Your task to perform on an android device: Open the map Image 0: 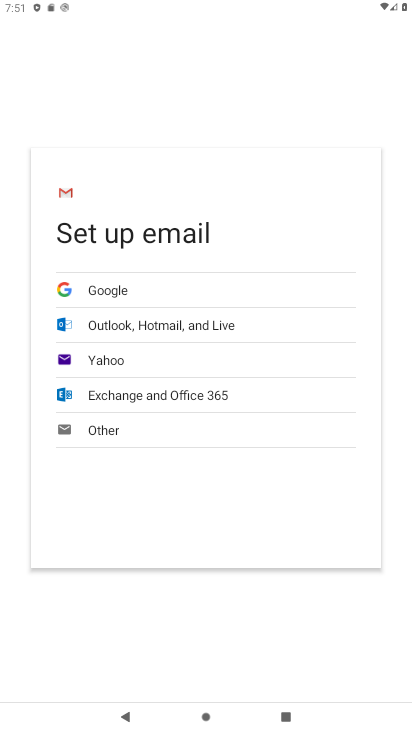
Step 0: press back button
Your task to perform on an android device: Open the map Image 1: 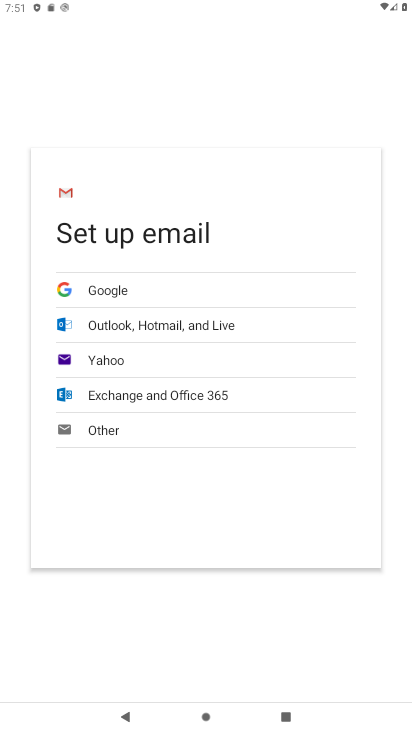
Step 1: press back button
Your task to perform on an android device: Open the map Image 2: 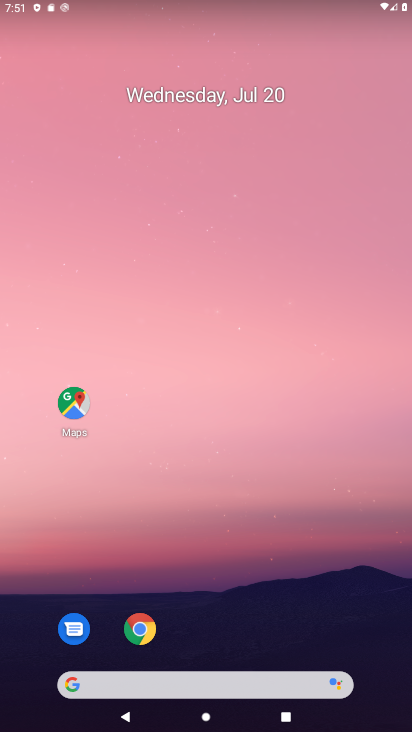
Step 2: drag from (215, 669) to (223, 413)
Your task to perform on an android device: Open the map Image 3: 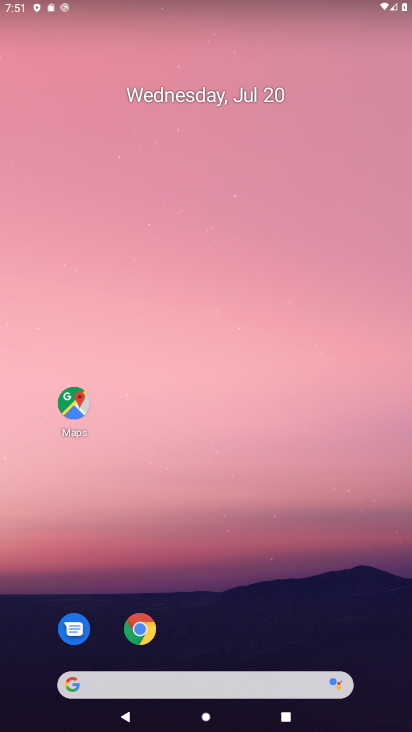
Step 3: drag from (242, 460) to (232, 137)
Your task to perform on an android device: Open the map Image 4: 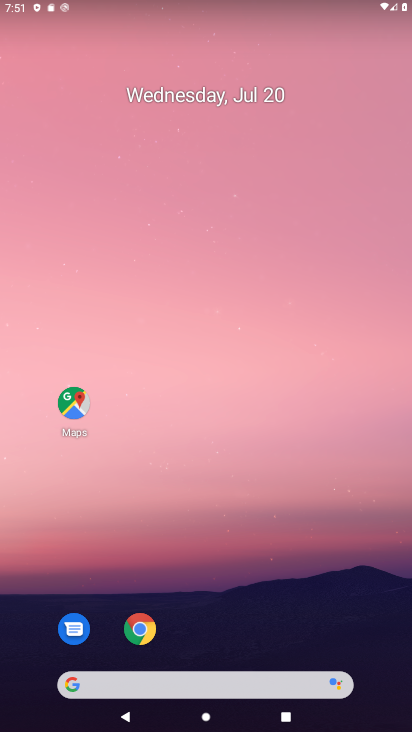
Step 4: click (177, 172)
Your task to perform on an android device: Open the map Image 5: 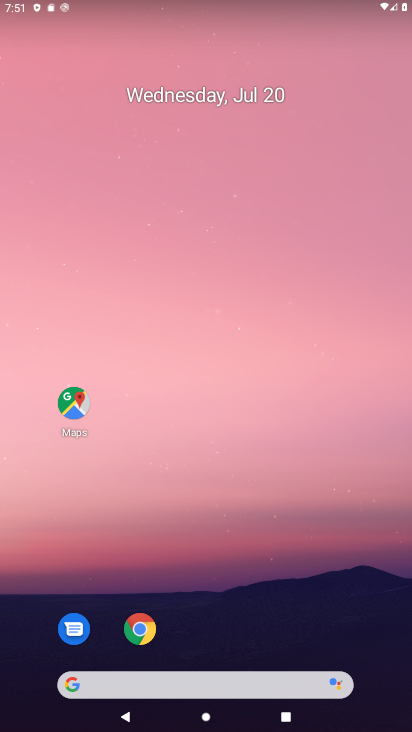
Step 5: drag from (215, 590) to (191, 11)
Your task to perform on an android device: Open the map Image 6: 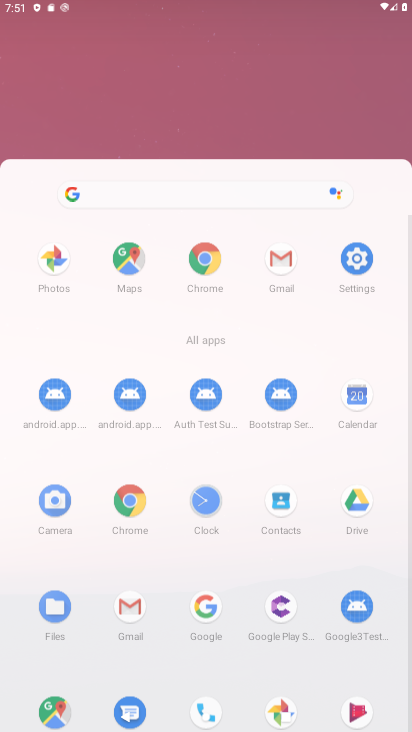
Step 6: drag from (240, 445) to (215, 20)
Your task to perform on an android device: Open the map Image 7: 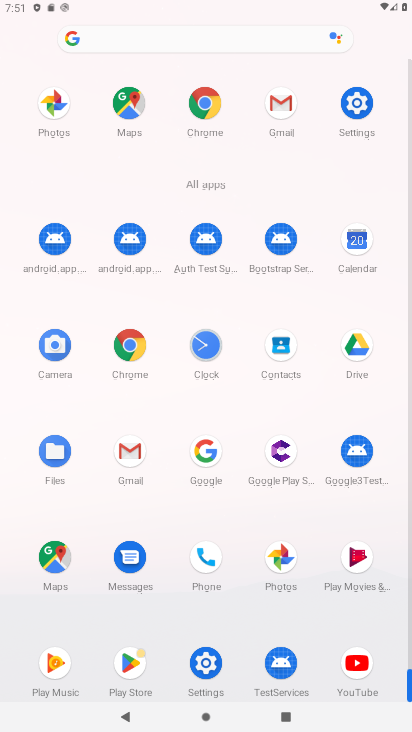
Step 7: click (58, 554)
Your task to perform on an android device: Open the map Image 8: 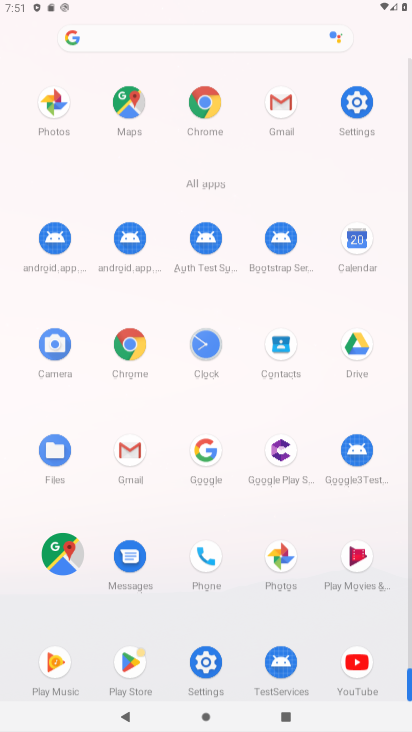
Step 8: click (57, 557)
Your task to perform on an android device: Open the map Image 9: 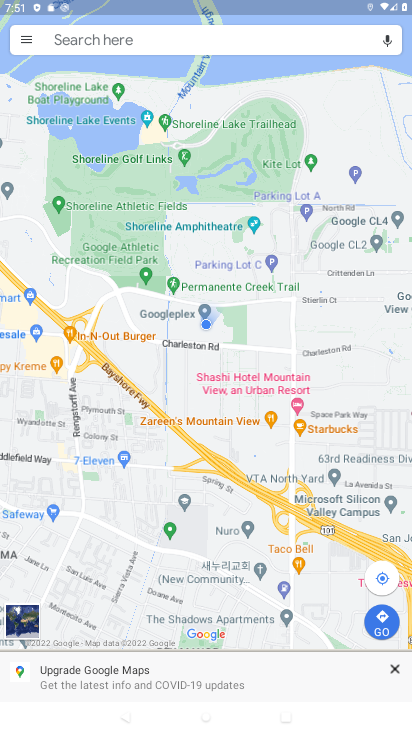
Step 9: task complete